Your task to perform on an android device: Open the Play Movies app and select the watchlist tab. Image 0: 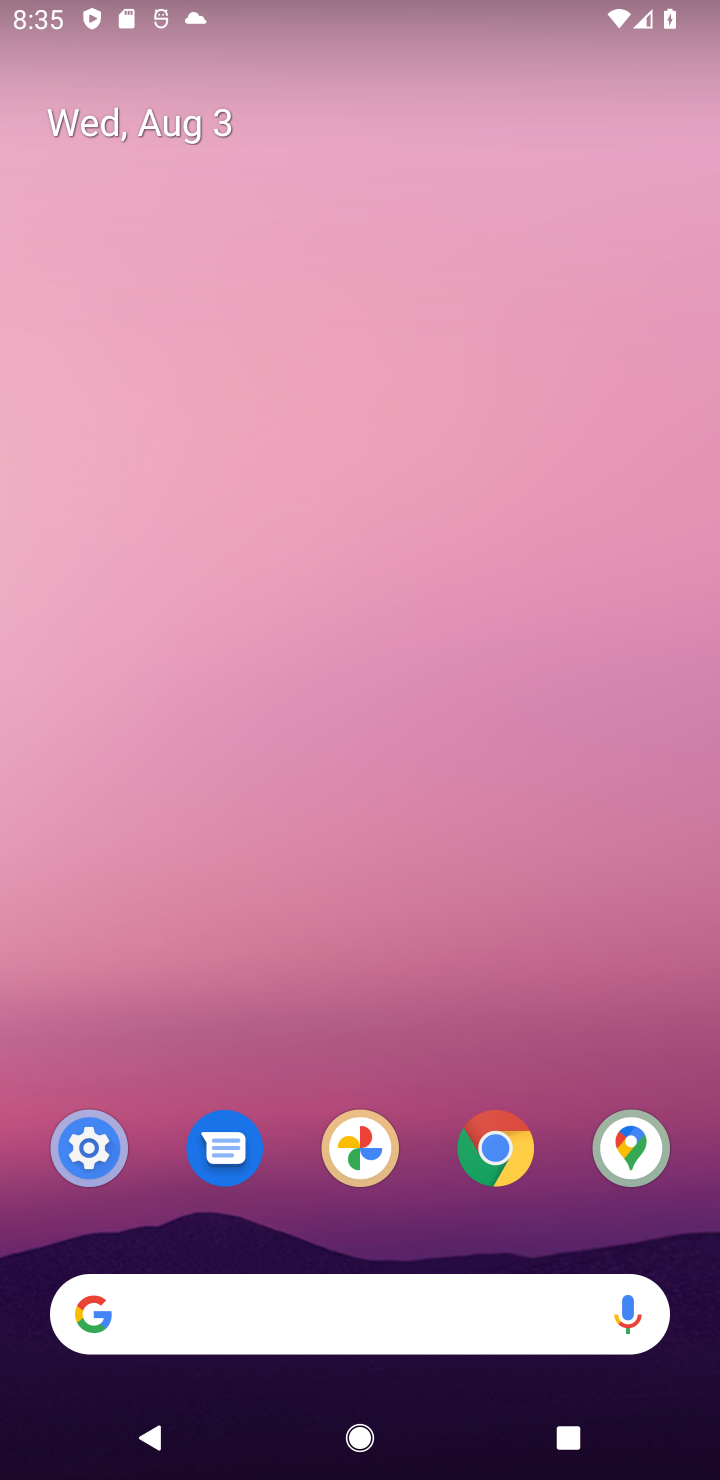
Step 0: drag from (376, 880) to (399, 138)
Your task to perform on an android device: Open the Play Movies app and select the watchlist tab. Image 1: 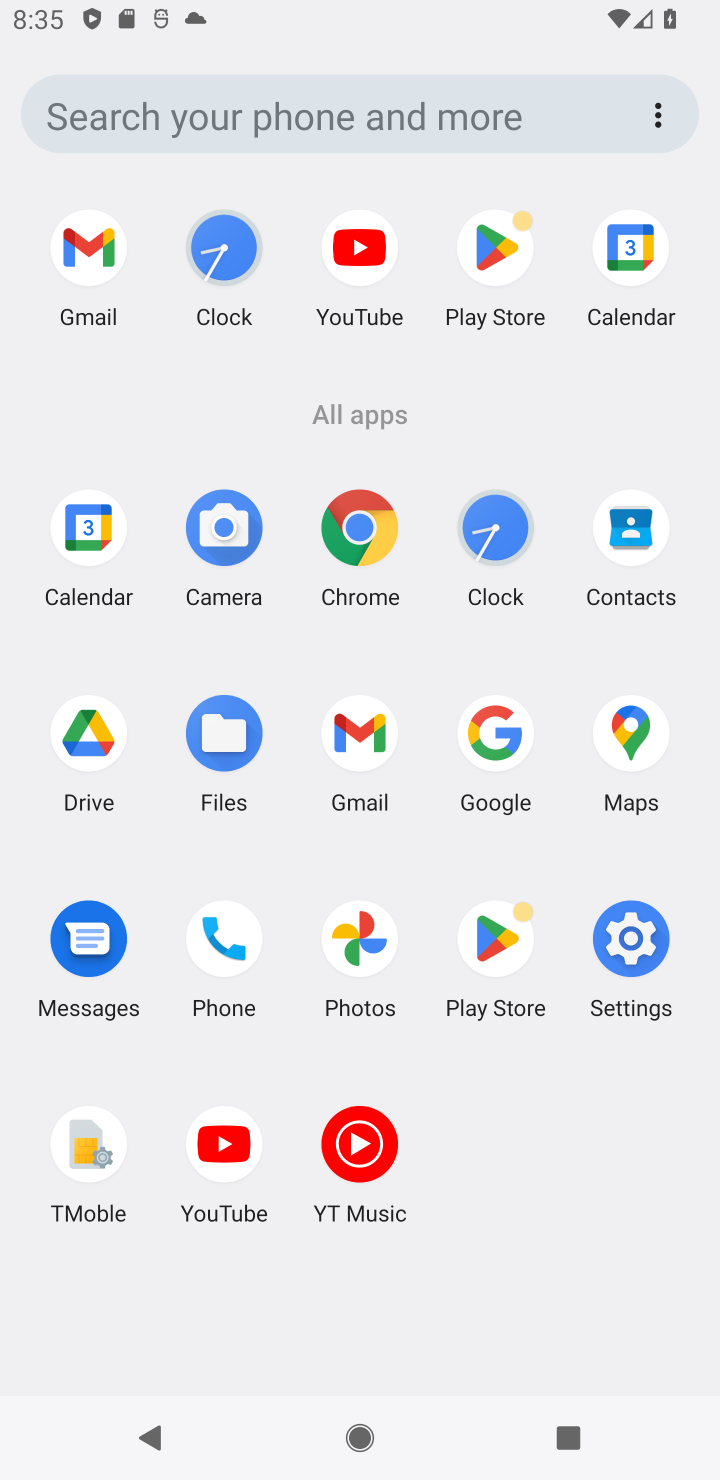
Step 1: task complete